Your task to perform on an android device: Toggle the flashlight Image 0: 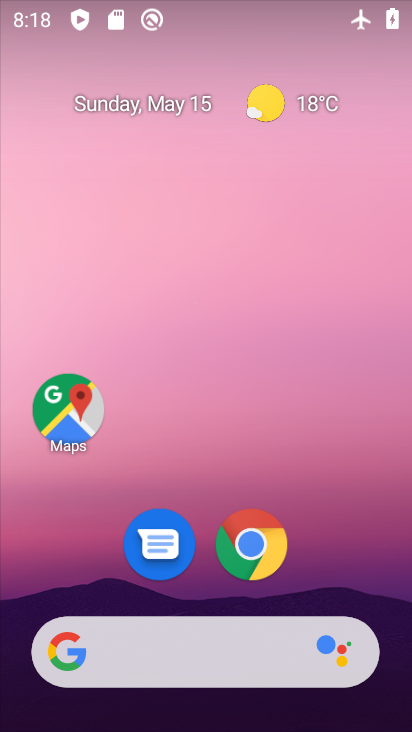
Step 0: drag from (310, 5) to (256, 717)
Your task to perform on an android device: Toggle the flashlight Image 1: 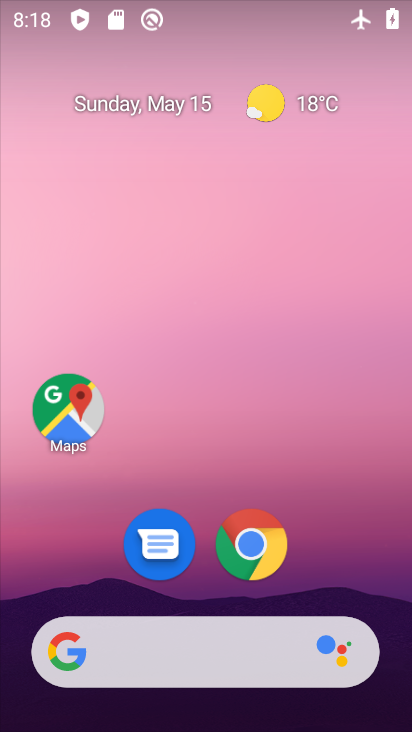
Step 1: task complete